Your task to perform on an android device: open sync settings in chrome Image 0: 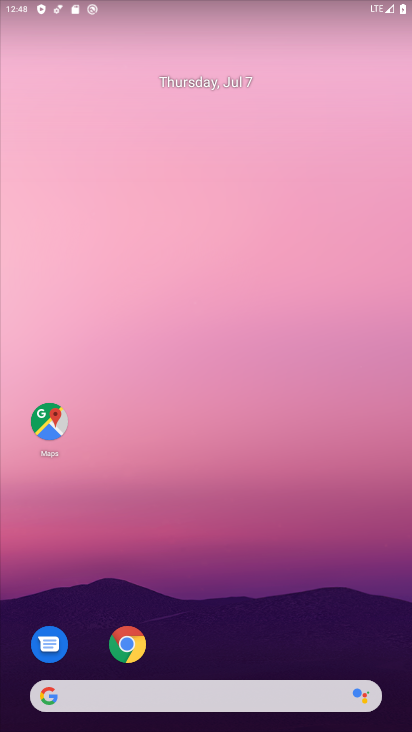
Step 0: click (149, 649)
Your task to perform on an android device: open sync settings in chrome Image 1: 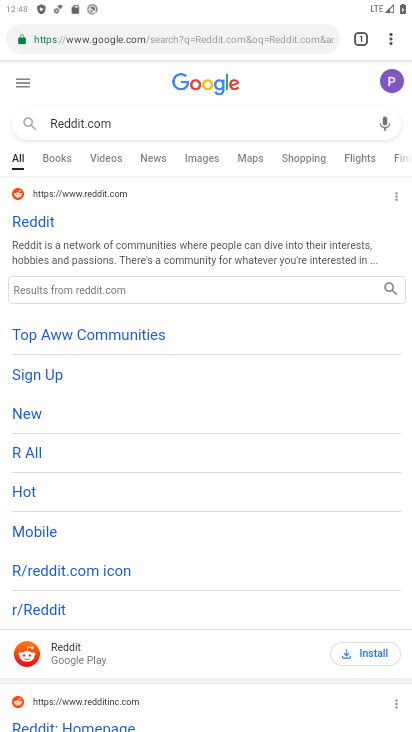
Step 1: click (390, 36)
Your task to perform on an android device: open sync settings in chrome Image 2: 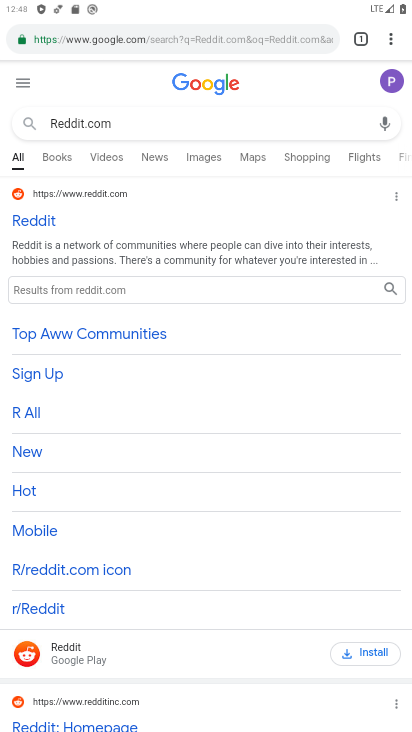
Step 2: click (385, 37)
Your task to perform on an android device: open sync settings in chrome Image 3: 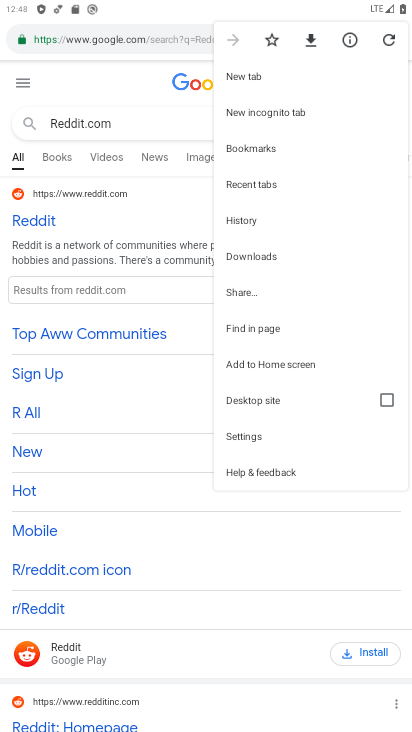
Step 3: click (241, 434)
Your task to perform on an android device: open sync settings in chrome Image 4: 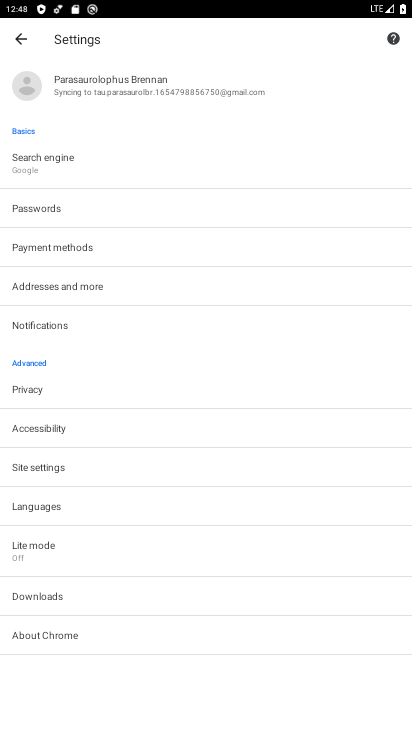
Step 4: click (61, 475)
Your task to perform on an android device: open sync settings in chrome Image 5: 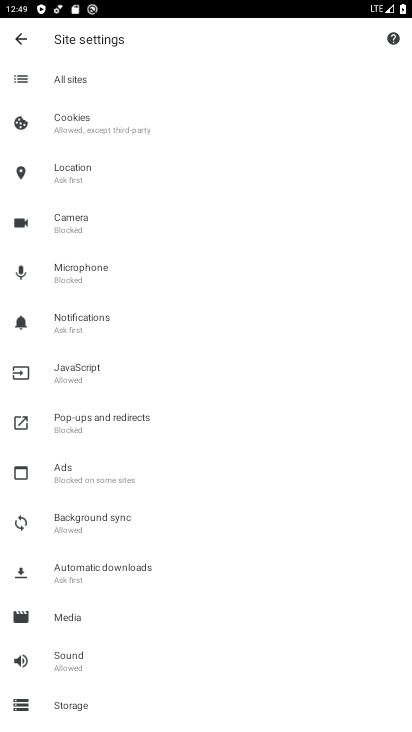
Step 5: click (65, 519)
Your task to perform on an android device: open sync settings in chrome Image 6: 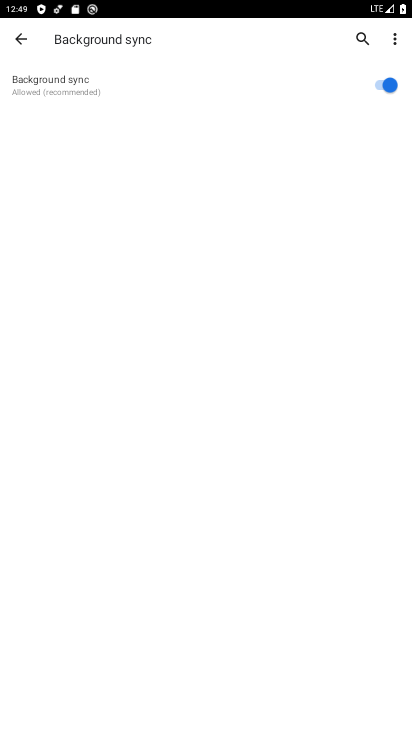
Step 6: task complete